Your task to perform on an android device: add a contact Image 0: 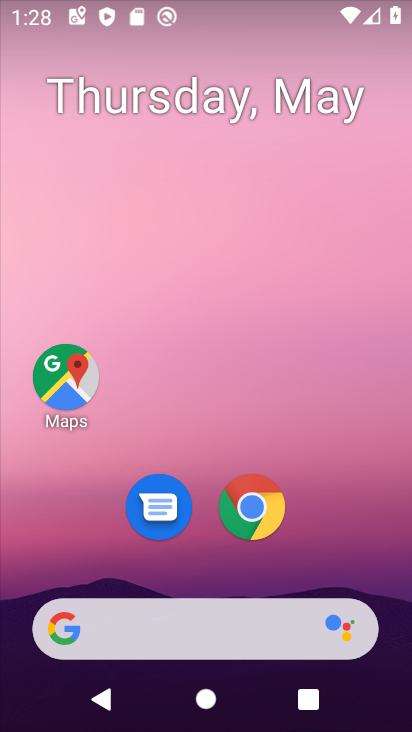
Step 0: drag from (340, 625) to (292, 47)
Your task to perform on an android device: add a contact Image 1: 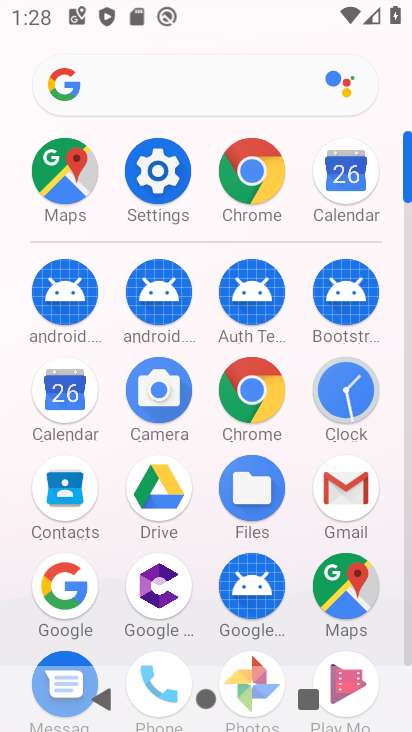
Step 1: click (88, 474)
Your task to perform on an android device: add a contact Image 2: 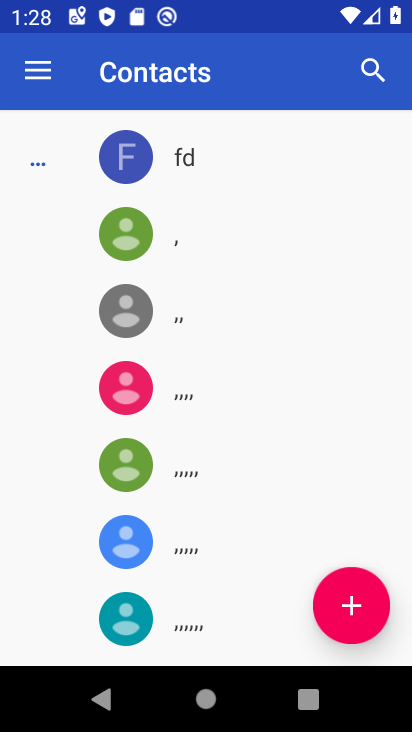
Step 2: click (367, 602)
Your task to perform on an android device: add a contact Image 3: 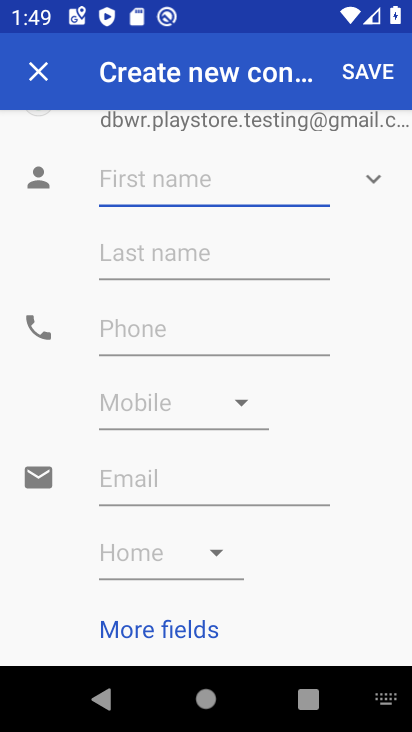
Step 3: type "jggjgyjg"
Your task to perform on an android device: add a contact Image 4: 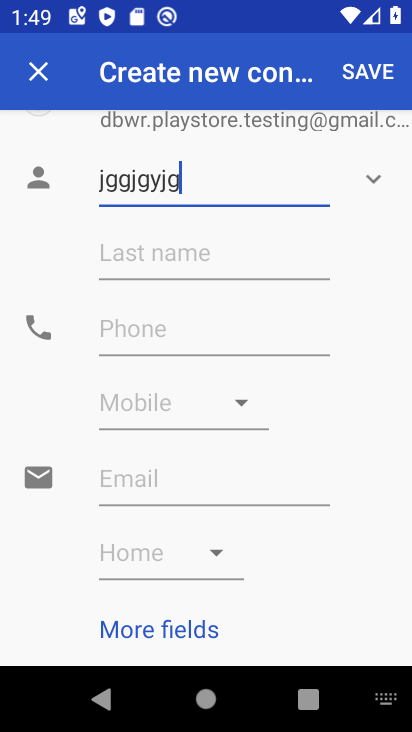
Step 4: click (216, 333)
Your task to perform on an android device: add a contact Image 5: 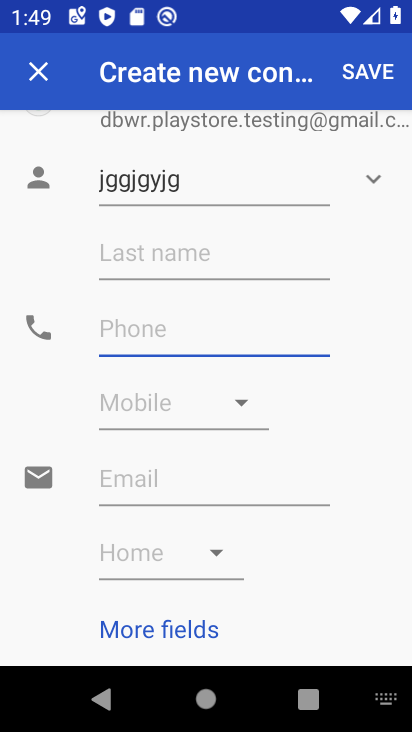
Step 5: type "989767788"
Your task to perform on an android device: add a contact Image 6: 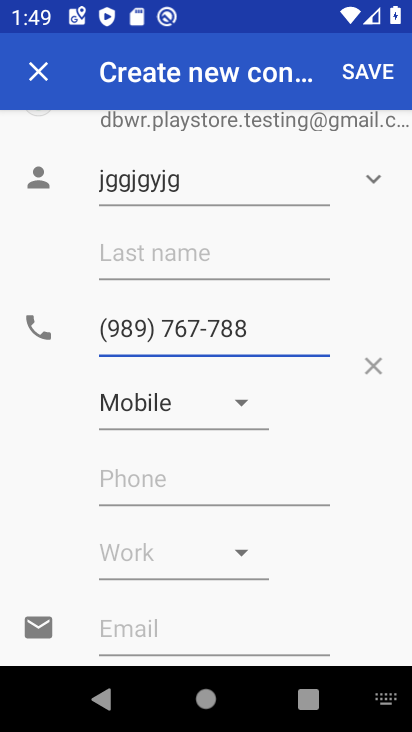
Step 6: click (360, 67)
Your task to perform on an android device: add a contact Image 7: 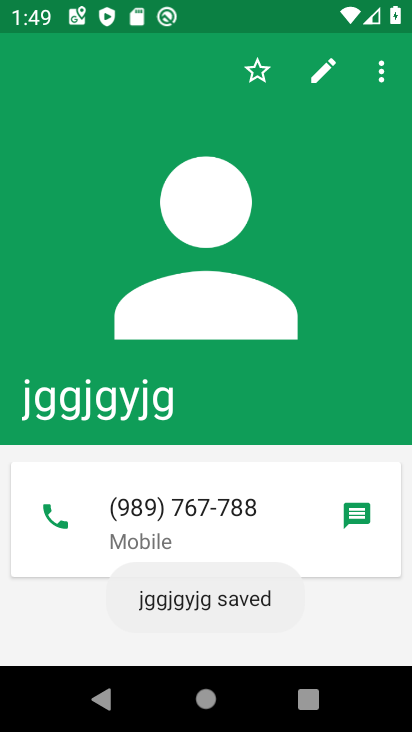
Step 7: task complete